Your task to perform on an android device: Open the stopwatch Image 0: 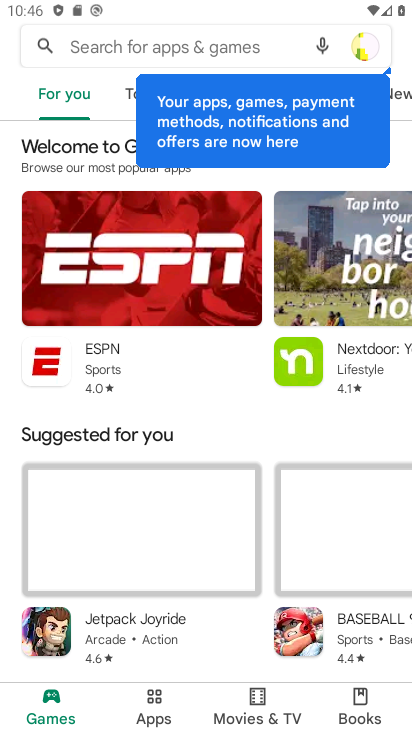
Step 0: press home button
Your task to perform on an android device: Open the stopwatch Image 1: 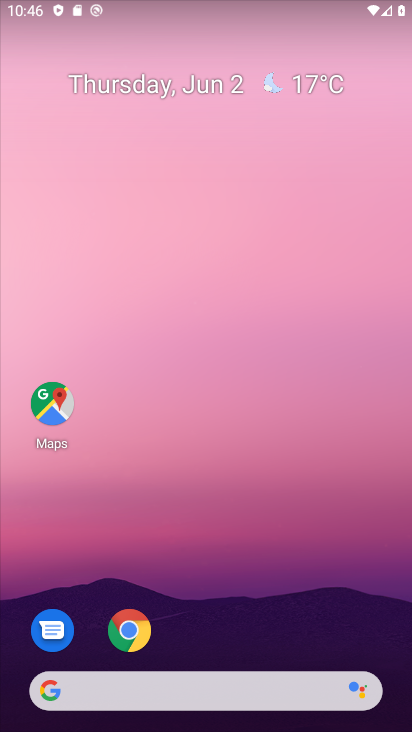
Step 1: drag from (247, 640) to (257, 69)
Your task to perform on an android device: Open the stopwatch Image 2: 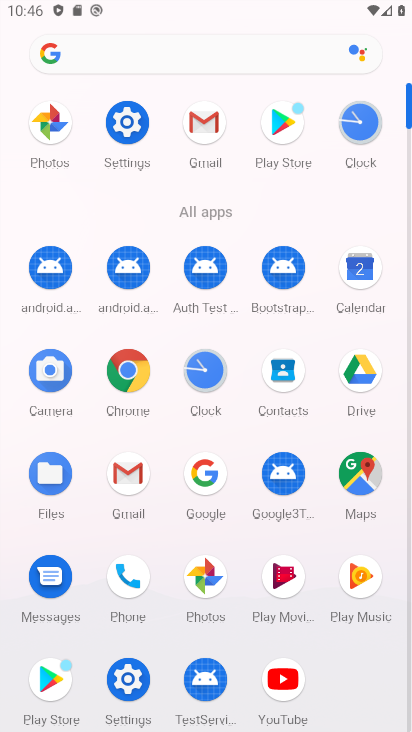
Step 2: click (206, 377)
Your task to perform on an android device: Open the stopwatch Image 3: 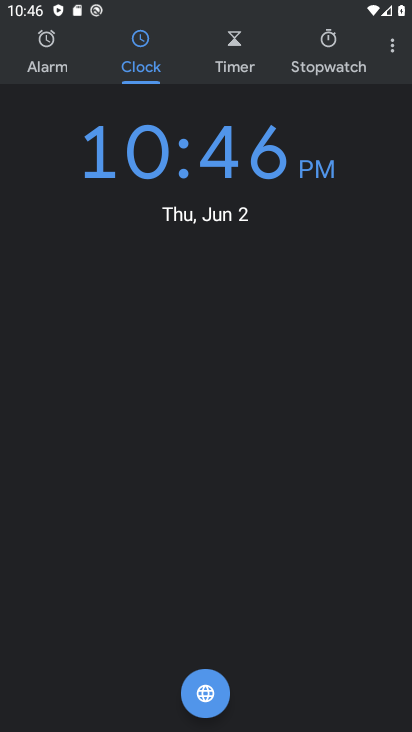
Step 3: click (336, 59)
Your task to perform on an android device: Open the stopwatch Image 4: 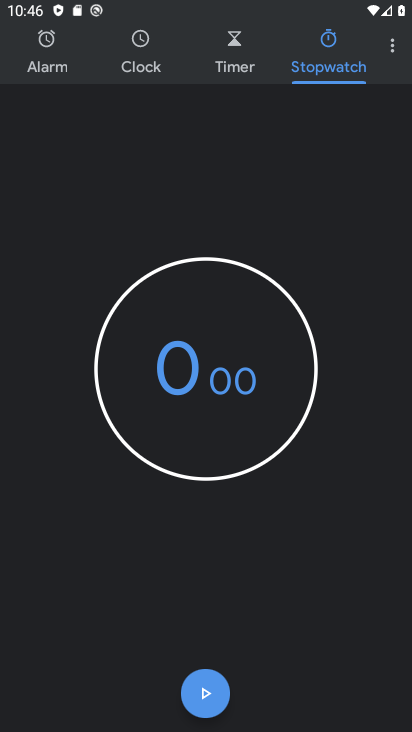
Step 4: click (199, 678)
Your task to perform on an android device: Open the stopwatch Image 5: 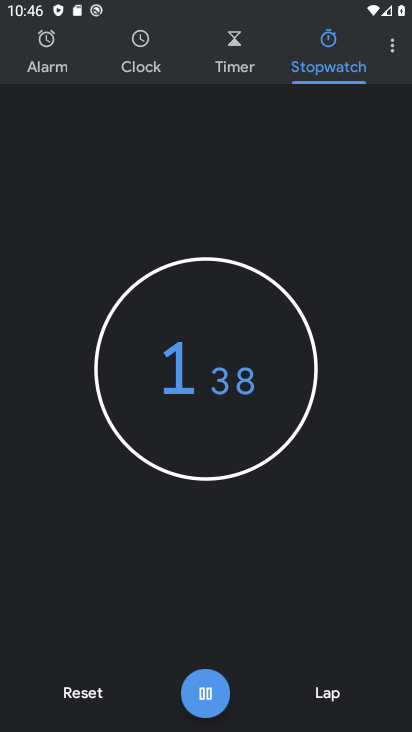
Step 5: task complete